Your task to perform on an android device: check out phone information Image 0: 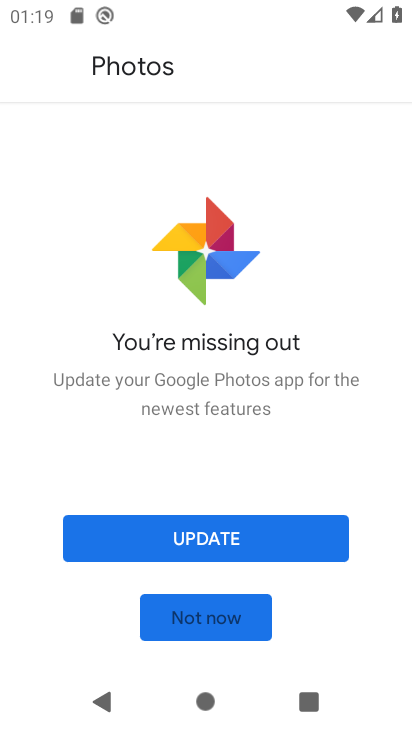
Step 0: press home button
Your task to perform on an android device: check out phone information Image 1: 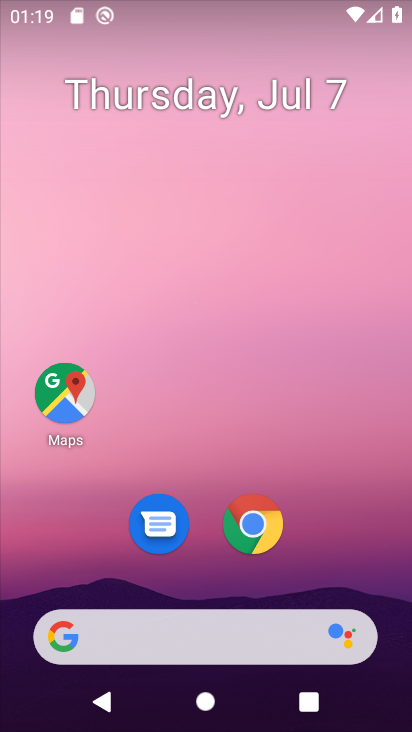
Step 1: drag from (318, 548) to (206, 15)
Your task to perform on an android device: check out phone information Image 2: 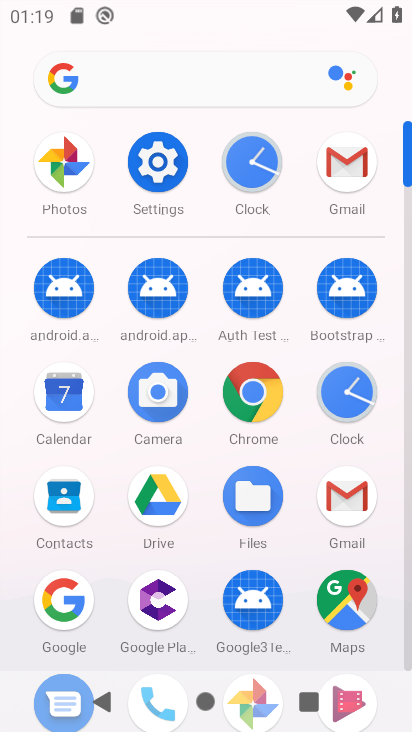
Step 2: drag from (186, 581) to (202, 290)
Your task to perform on an android device: check out phone information Image 3: 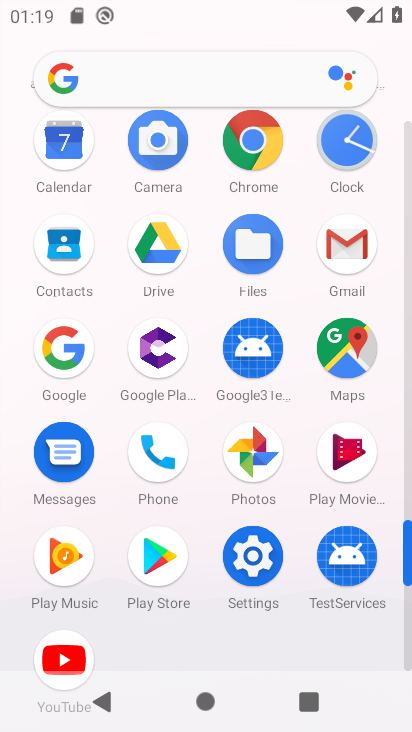
Step 3: click (165, 457)
Your task to perform on an android device: check out phone information Image 4: 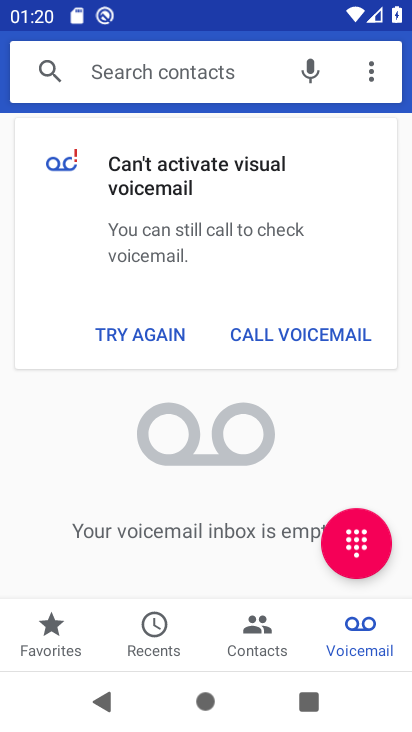
Step 4: click (367, 75)
Your task to perform on an android device: check out phone information Image 5: 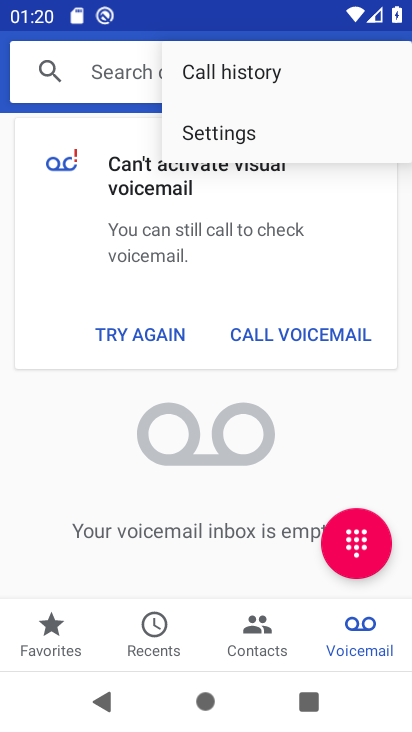
Step 5: click (307, 130)
Your task to perform on an android device: check out phone information Image 6: 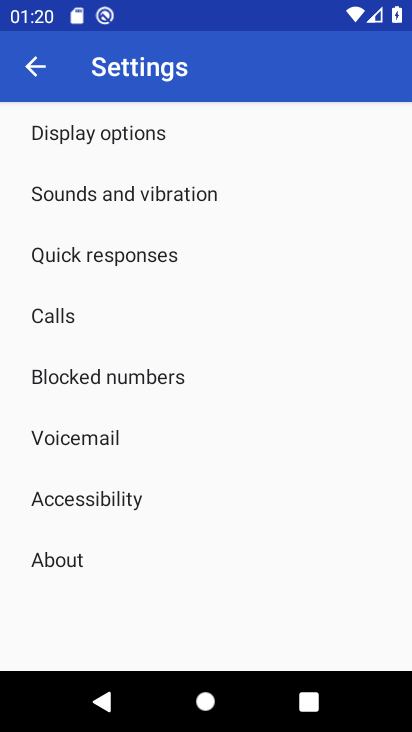
Step 6: click (68, 584)
Your task to perform on an android device: check out phone information Image 7: 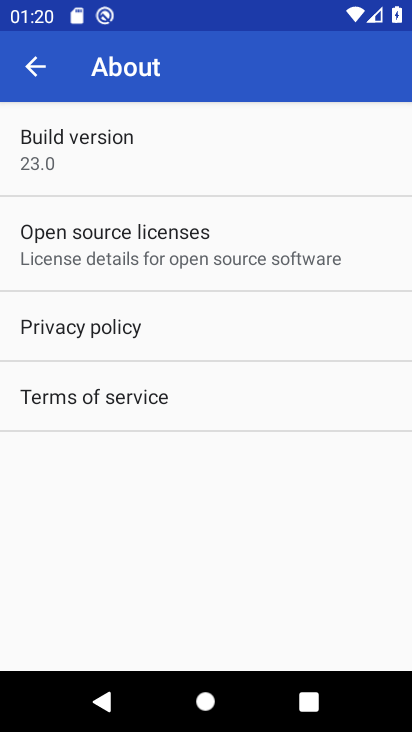
Step 7: task complete